Your task to perform on an android device: Go to battery settings Image 0: 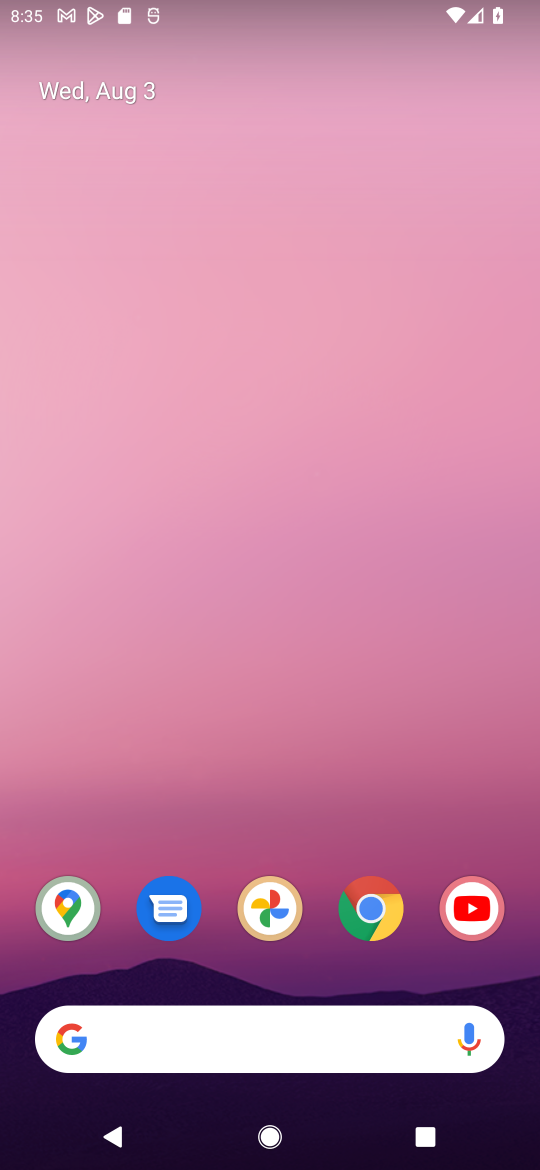
Step 0: drag from (275, 1011) to (161, 0)
Your task to perform on an android device: Go to battery settings Image 1: 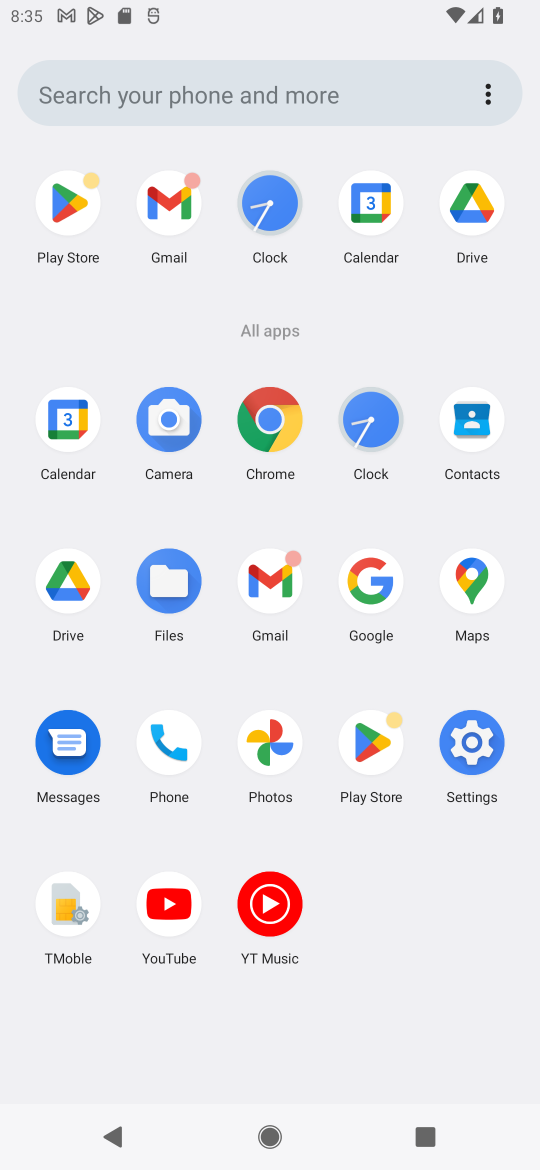
Step 1: click (481, 757)
Your task to perform on an android device: Go to battery settings Image 2: 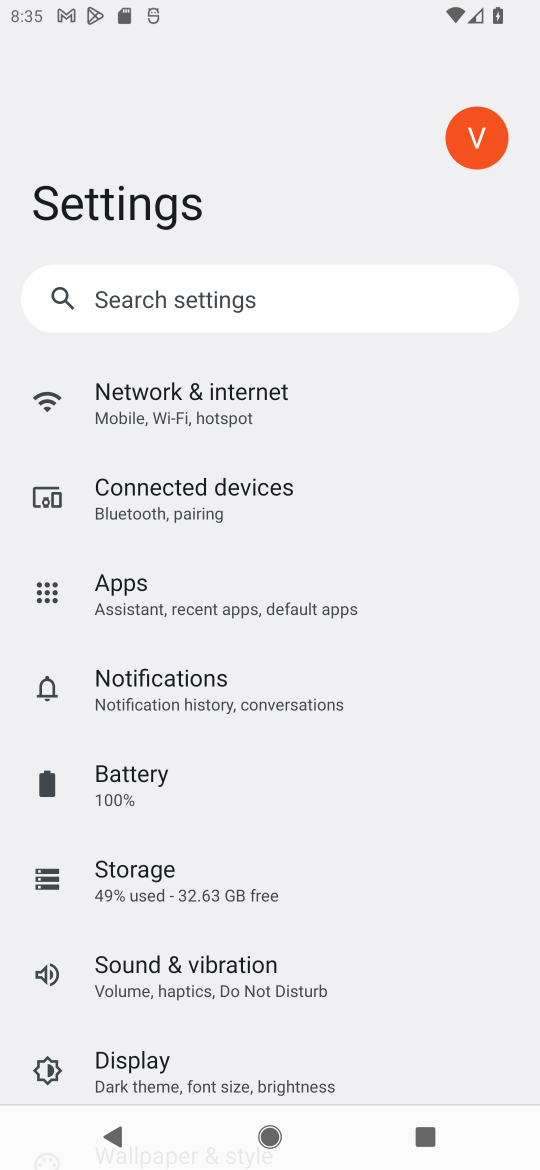
Step 2: click (141, 765)
Your task to perform on an android device: Go to battery settings Image 3: 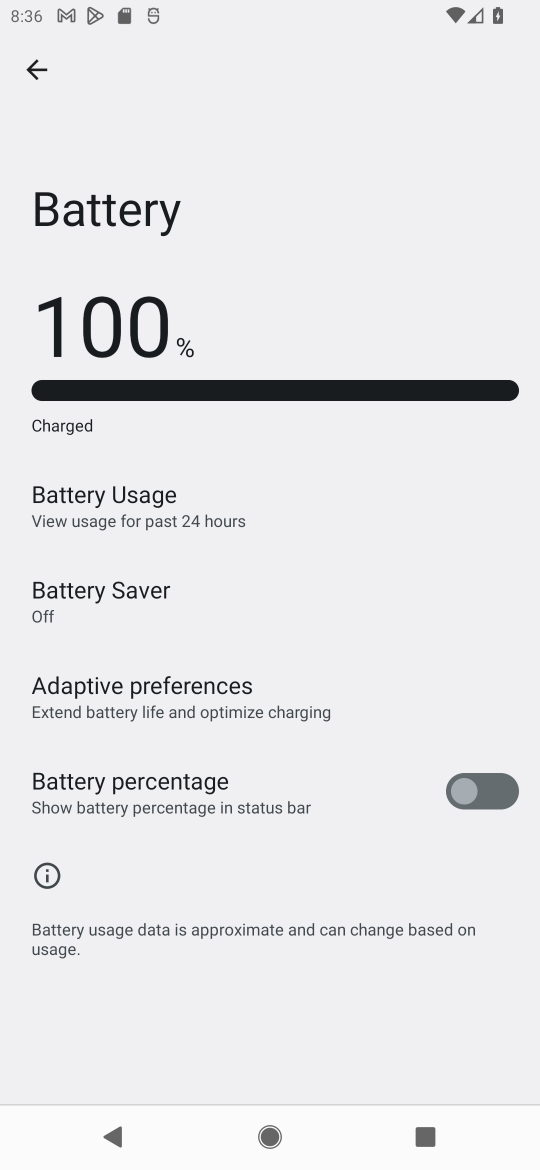
Step 3: task complete